Your task to perform on an android device: create a new album in the google photos Image 0: 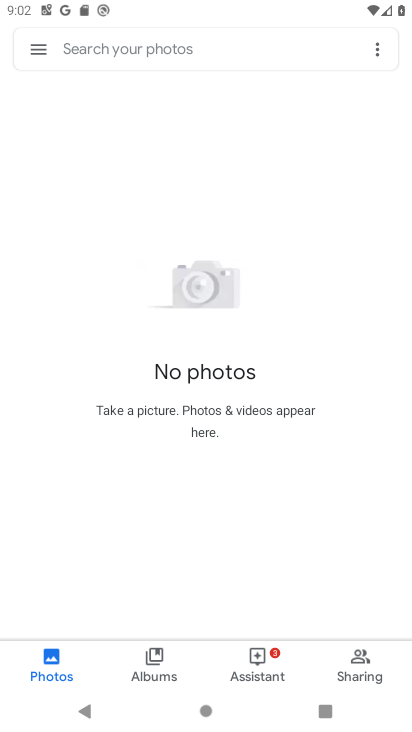
Step 0: press back button
Your task to perform on an android device: create a new album in the google photos Image 1: 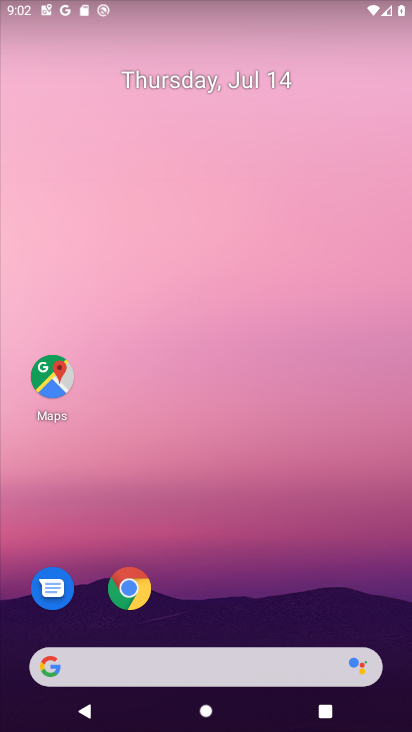
Step 1: drag from (239, 601) to (138, 10)
Your task to perform on an android device: create a new album in the google photos Image 2: 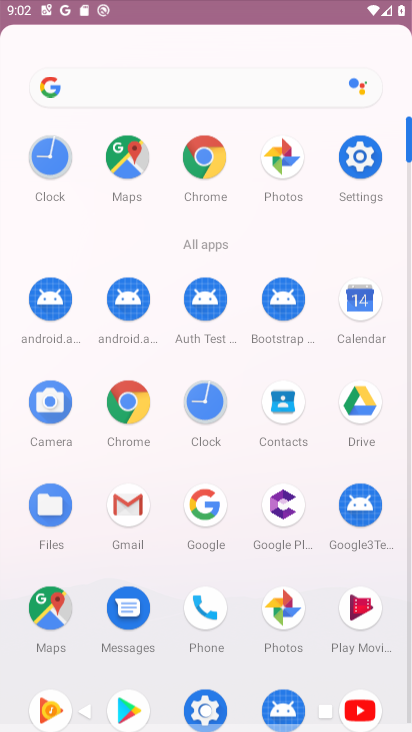
Step 2: drag from (239, 477) to (203, 142)
Your task to perform on an android device: create a new album in the google photos Image 3: 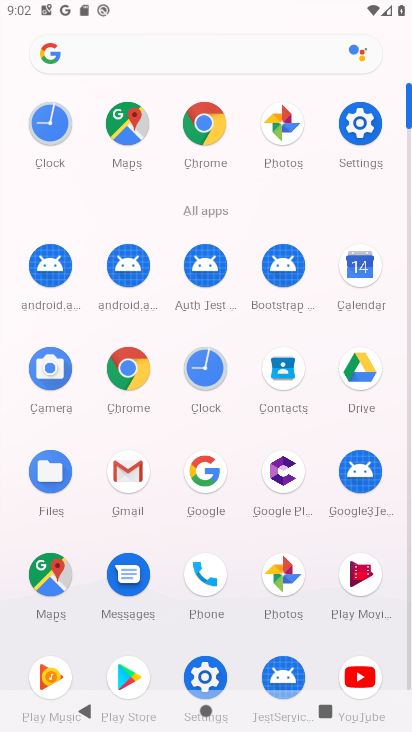
Step 3: click (275, 574)
Your task to perform on an android device: create a new album in the google photos Image 4: 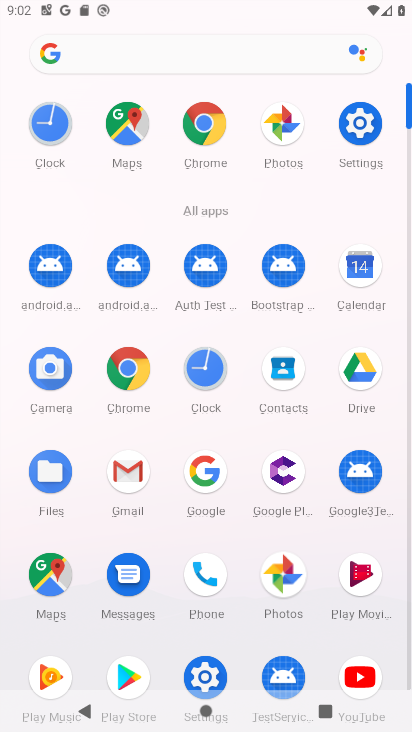
Step 4: click (279, 576)
Your task to perform on an android device: create a new album in the google photos Image 5: 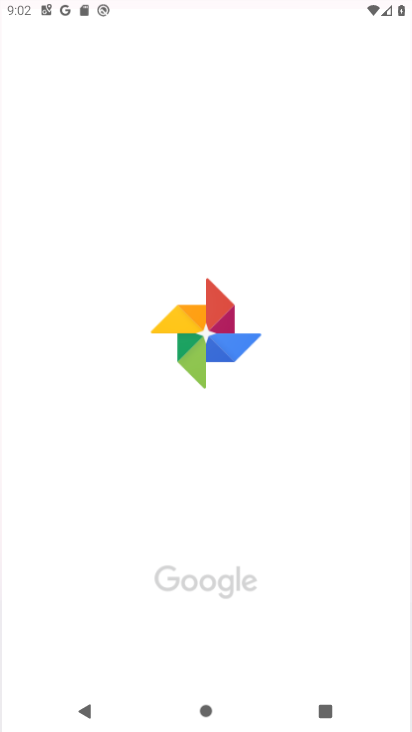
Step 5: click (279, 574)
Your task to perform on an android device: create a new album in the google photos Image 6: 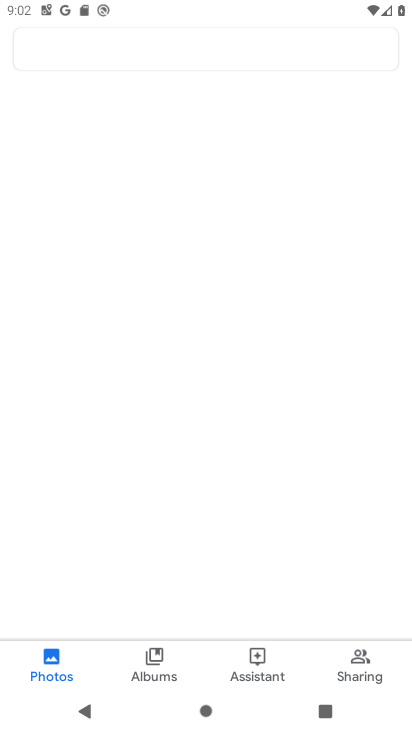
Step 6: click (280, 573)
Your task to perform on an android device: create a new album in the google photos Image 7: 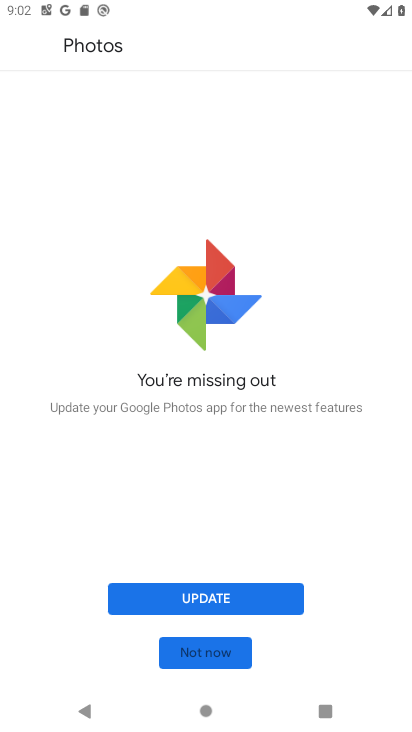
Step 7: click (210, 646)
Your task to perform on an android device: create a new album in the google photos Image 8: 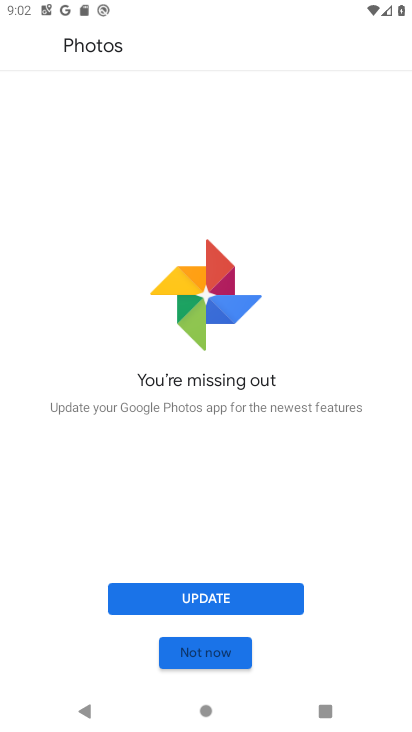
Step 8: click (210, 646)
Your task to perform on an android device: create a new album in the google photos Image 9: 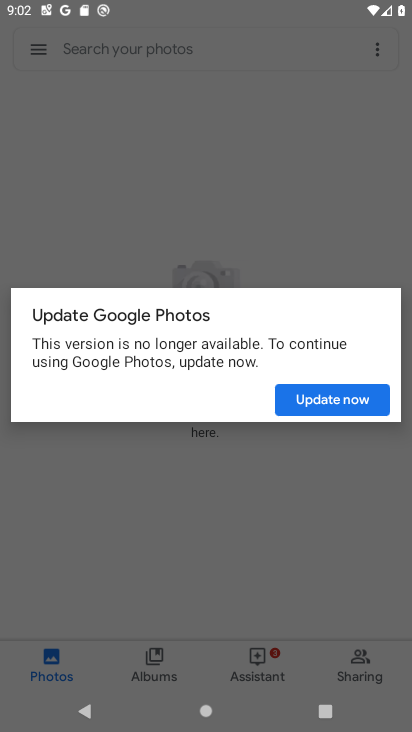
Step 9: click (317, 385)
Your task to perform on an android device: create a new album in the google photos Image 10: 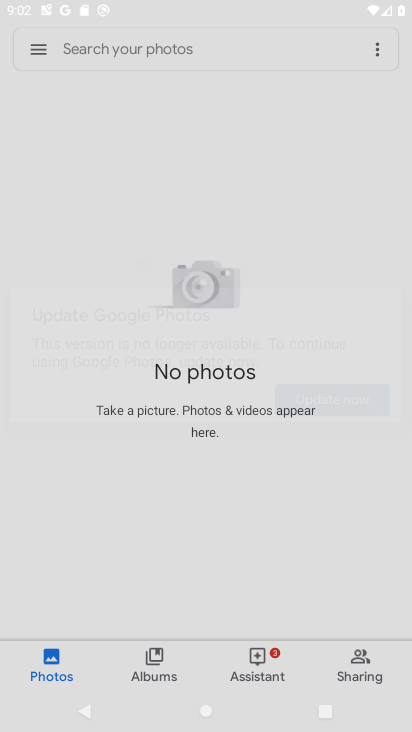
Step 10: click (321, 397)
Your task to perform on an android device: create a new album in the google photos Image 11: 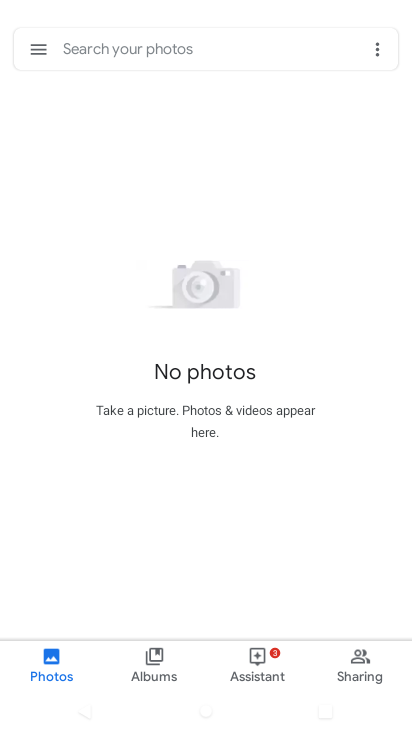
Step 11: click (321, 397)
Your task to perform on an android device: create a new album in the google photos Image 12: 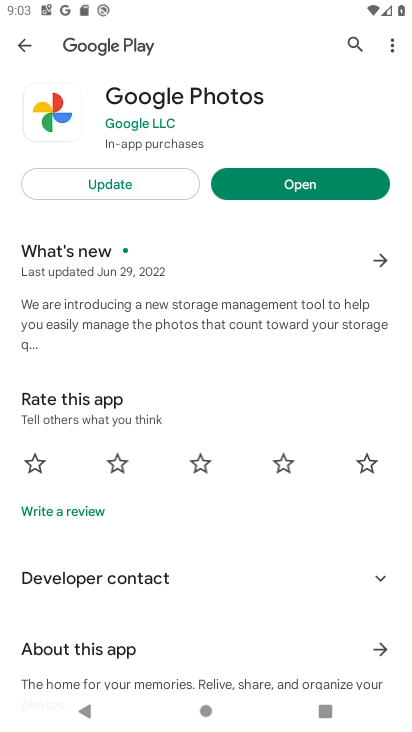
Step 12: click (31, 48)
Your task to perform on an android device: create a new album in the google photos Image 13: 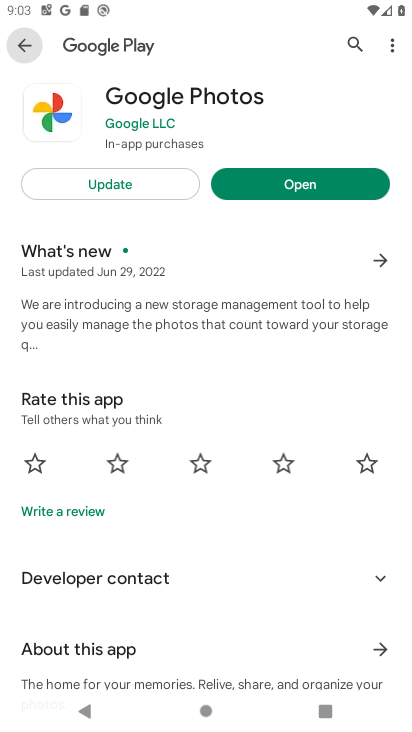
Step 13: click (31, 48)
Your task to perform on an android device: create a new album in the google photos Image 14: 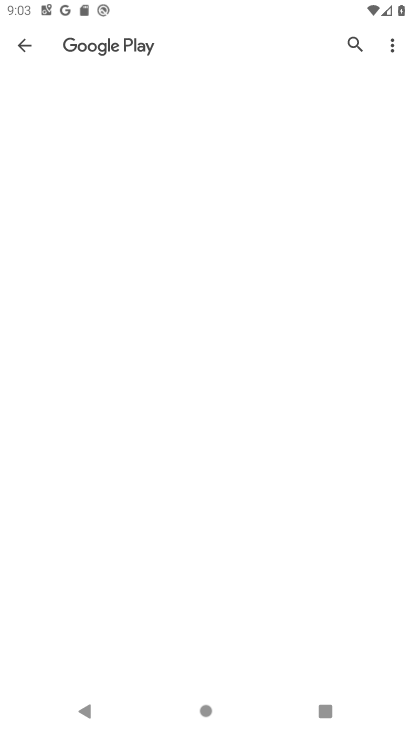
Step 14: click (31, 48)
Your task to perform on an android device: create a new album in the google photos Image 15: 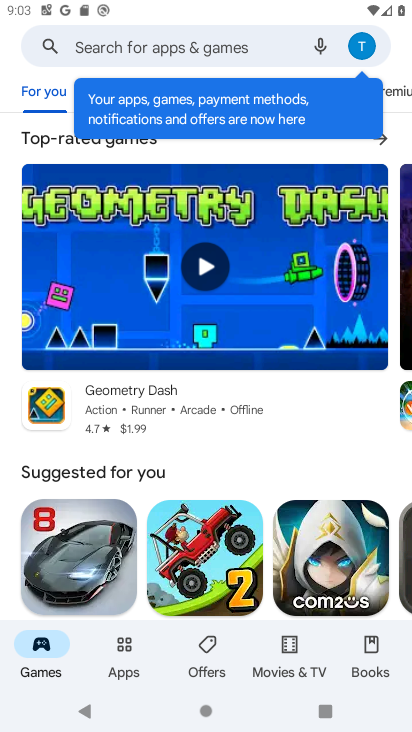
Step 15: click (282, 49)
Your task to perform on an android device: create a new album in the google photos Image 16: 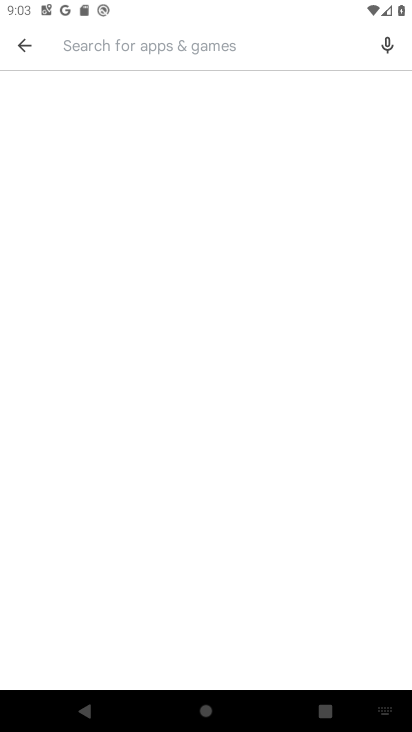
Step 16: click (21, 42)
Your task to perform on an android device: create a new album in the google photos Image 17: 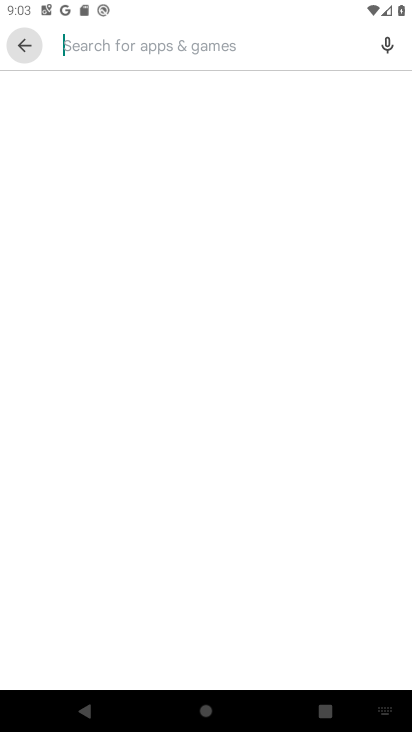
Step 17: click (24, 41)
Your task to perform on an android device: create a new album in the google photos Image 18: 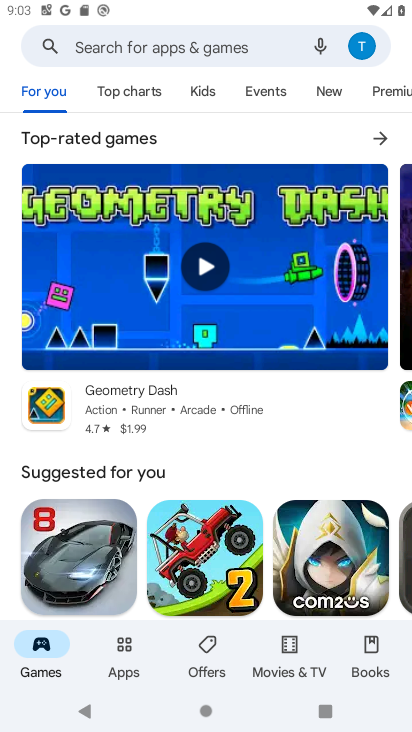
Step 18: press back button
Your task to perform on an android device: create a new album in the google photos Image 19: 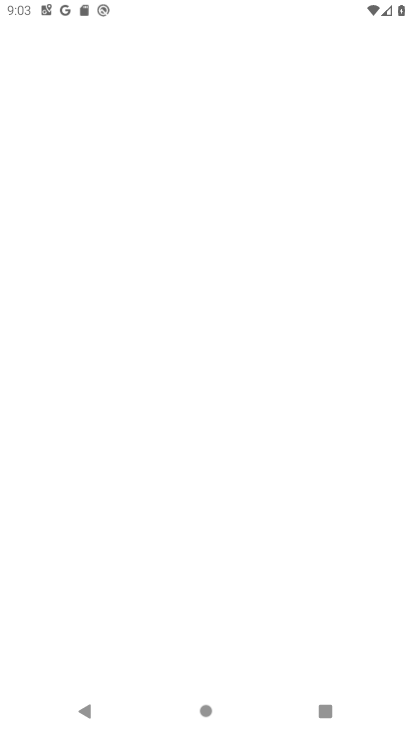
Step 19: press back button
Your task to perform on an android device: create a new album in the google photos Image 20: 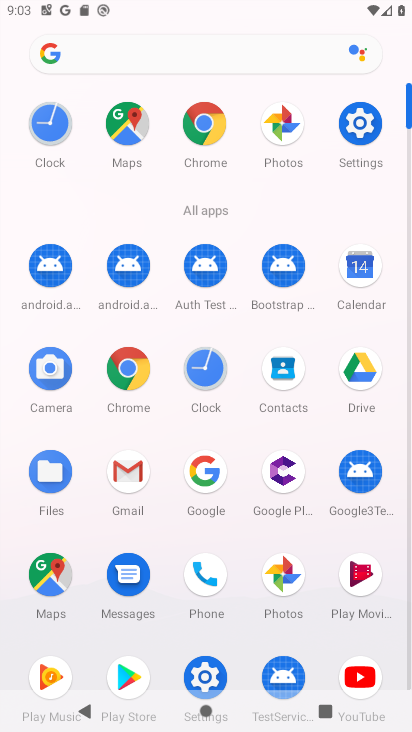
Step 20: click (284, 572)
Your task to perform on an android device: create a new album in the google photos Image 21: 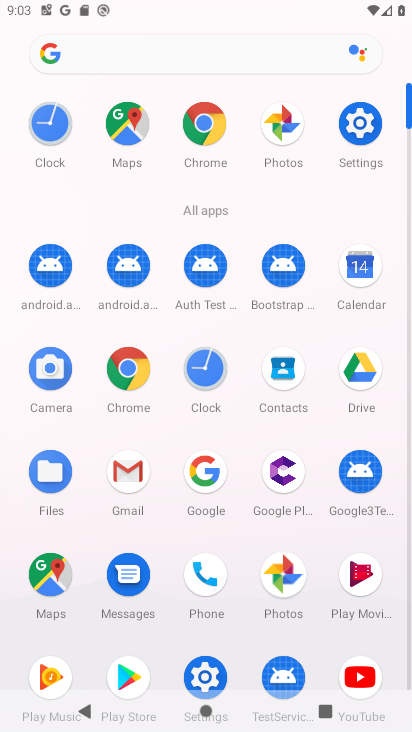
Step 21: click (284, 572)
Your task to perform on an android device: create a new album in the google photos Image 22: 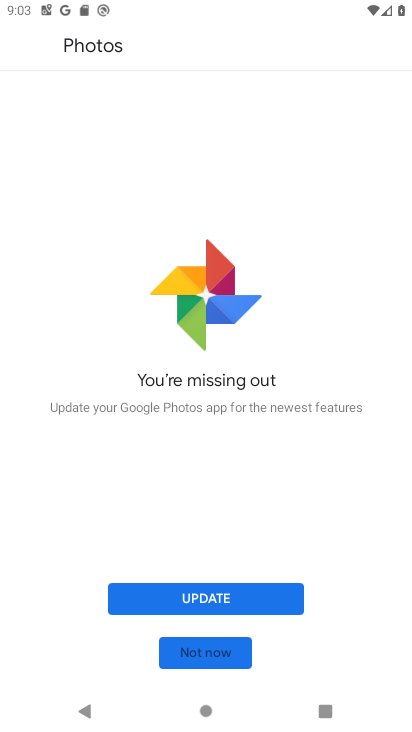
Step 22: click (196, 646)
Your task to perform on an android device: create a new album in the google photos Image 23: 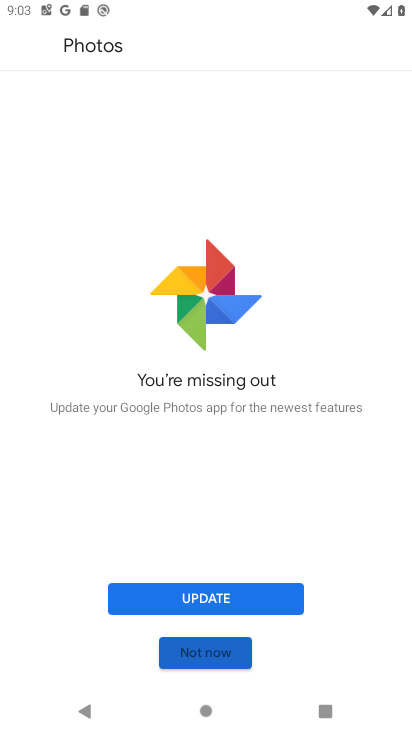
Step 23: click (196, 655)
Your task to perform on an android device: create a new album in the google photos Image 24: 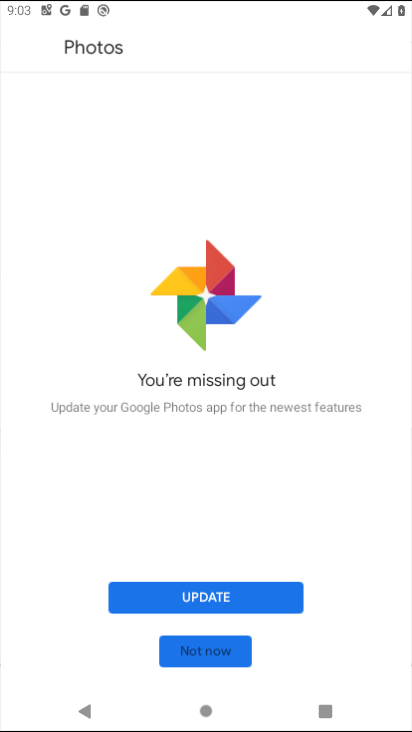
Step 24: click (201, 654)
Your task to perform on an android device: create a new album in the google photos Image 25: 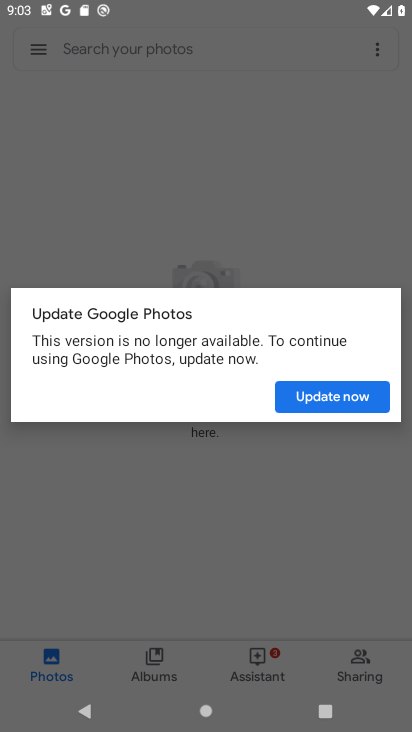
Step 25: click (211, 654)
Your task to perform on an android device: create a new album in the google photos Image 26: 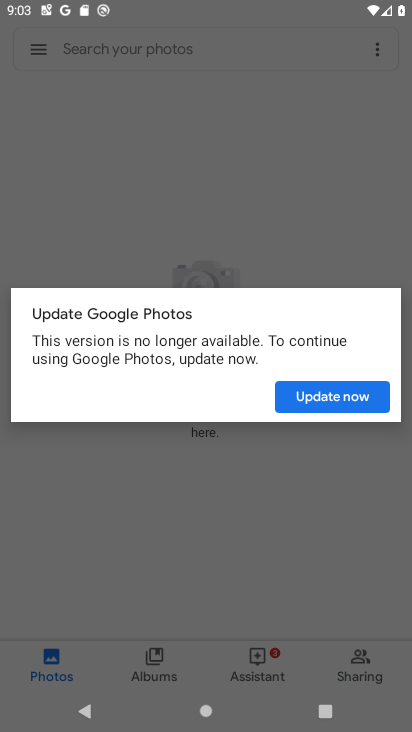
Step 26: click (245, 171)
Your task to perform on an android device: create a new album in the google photos Image 27: 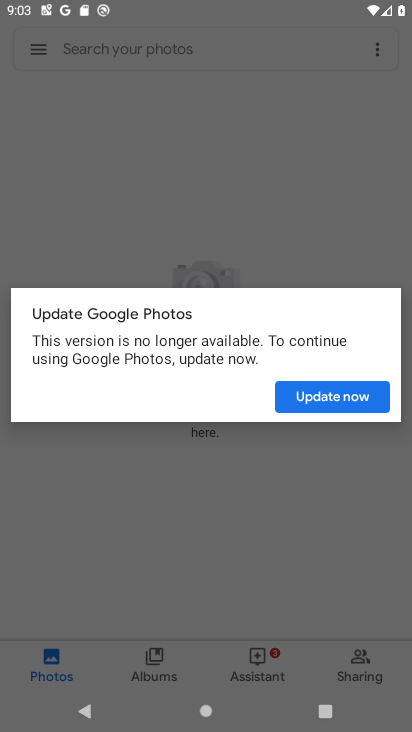
Step 27: click (244, 170)
Your task to perform on an android device: create a new album in the google photos Image 28: 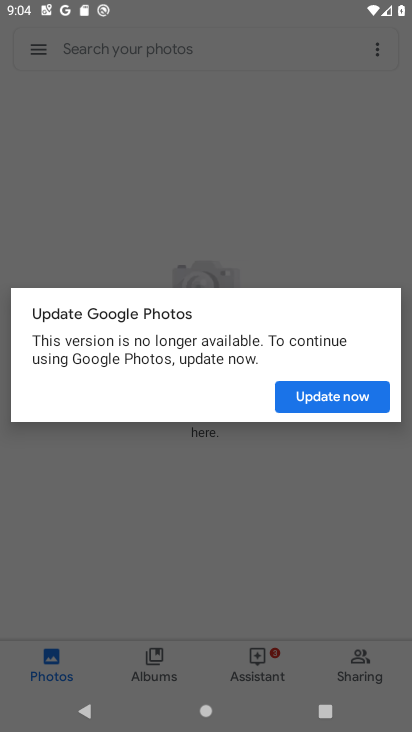
Step 28: click (331, 231)
Your task to perform on an android device: create a new album in the google photos Image 29: 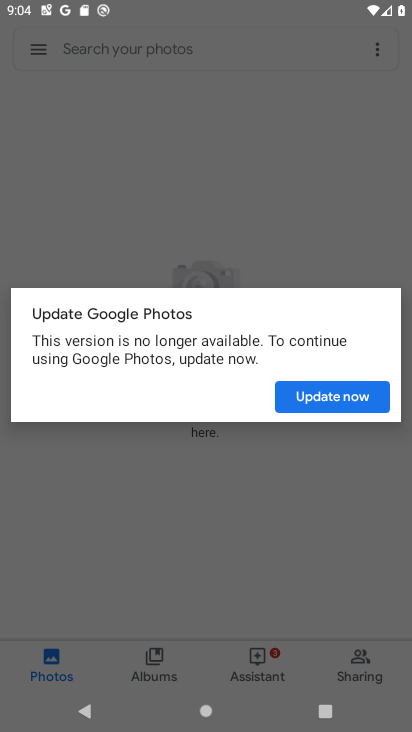
Step 29: click (331, 231)
Your task to perform on an android device: create a new album in the google photos Image 30: 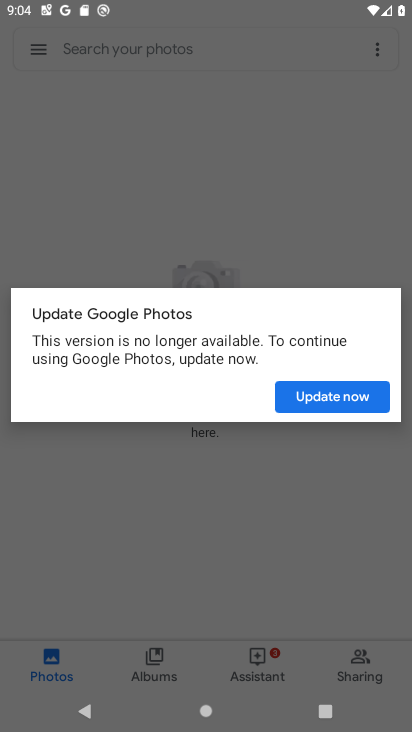
Step 30: click (331, 231)
Your task to perform on an android device: create a new album in the google photos Image 31: 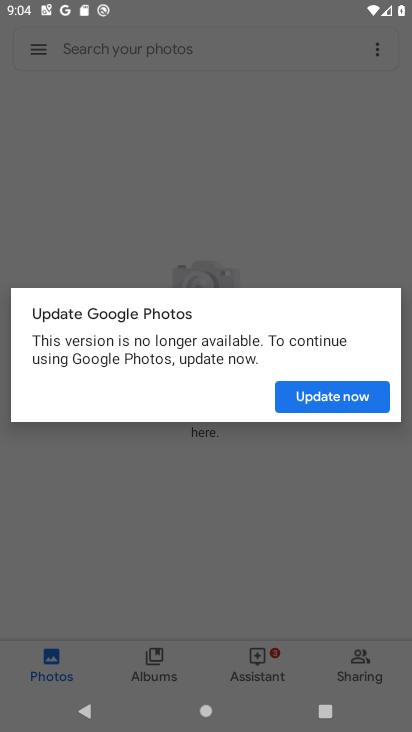
Step 31: click (330, 391)
Your task to perform on an android device: create a new album in the google photos Image 32: 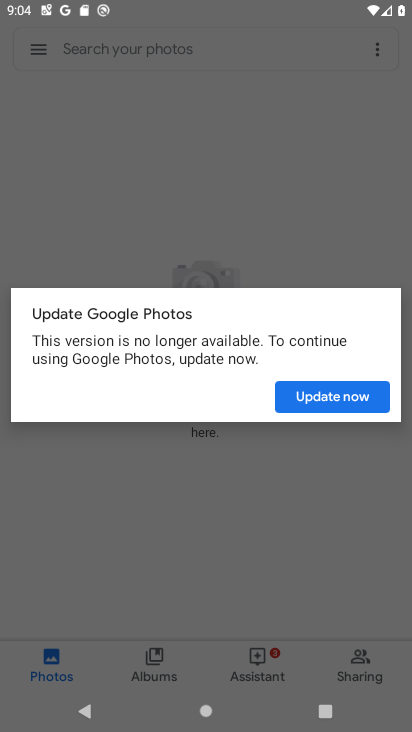
Step 32: click (330, 397)
Your task to perform on an android device: create a new album in the google photos Image 33: 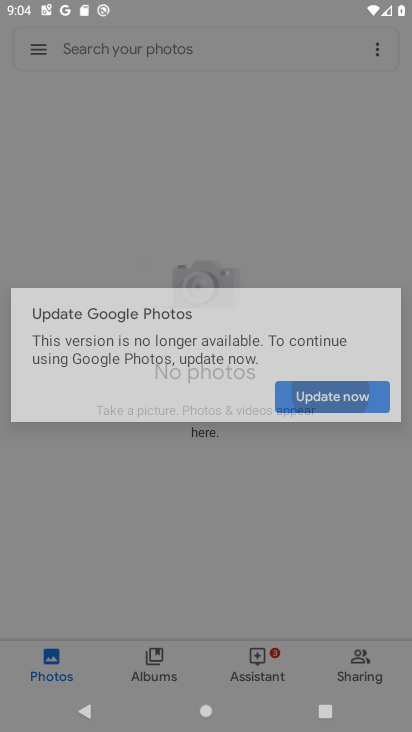
Step 33: click (333, 399)
Your task to perform on an android device: create a new album in the google photos Image 34: 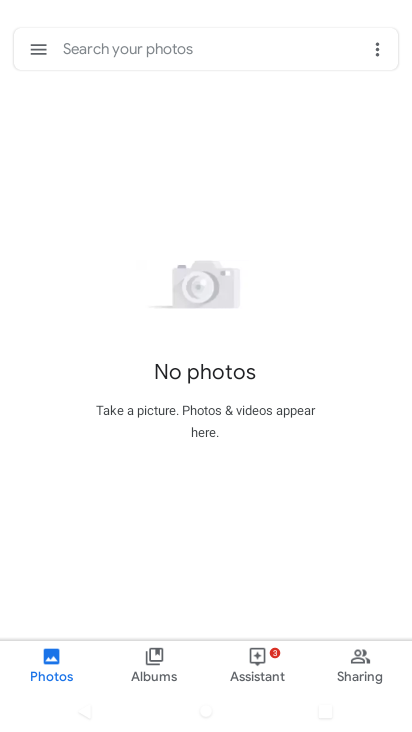
Step 34: click (334, 399)
Your task to perform on an android device: create a new album in the google photos Image 35: 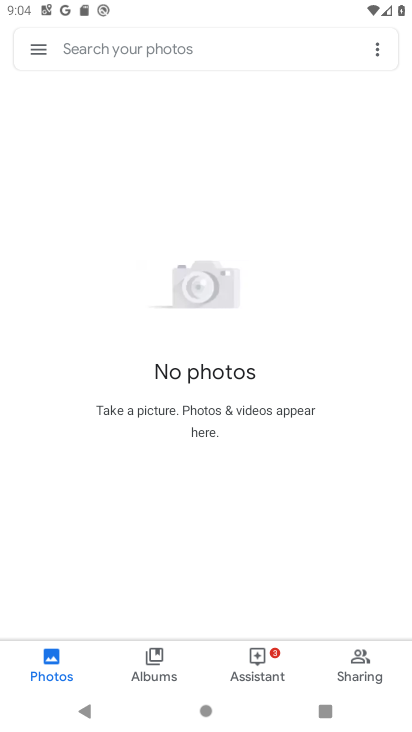
Step 35: press back button
Your task to perform on an android device: create a new album in the google photos Image 36: 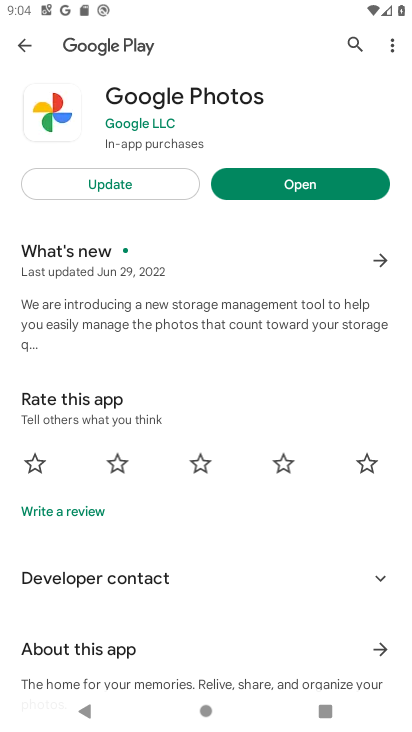
Step 36: click (31, 48)
Your task to perform on an android device: create a new album in the google photos Image 37: 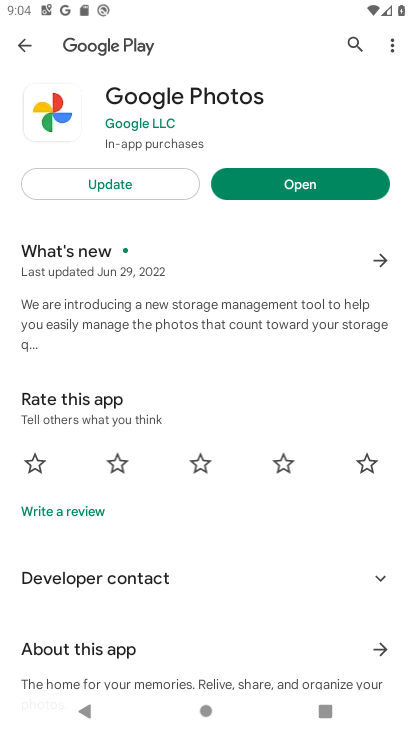
Step 37: click (26, 46)
Your task to perform on an android device: create a new album in the google photos Image 38: 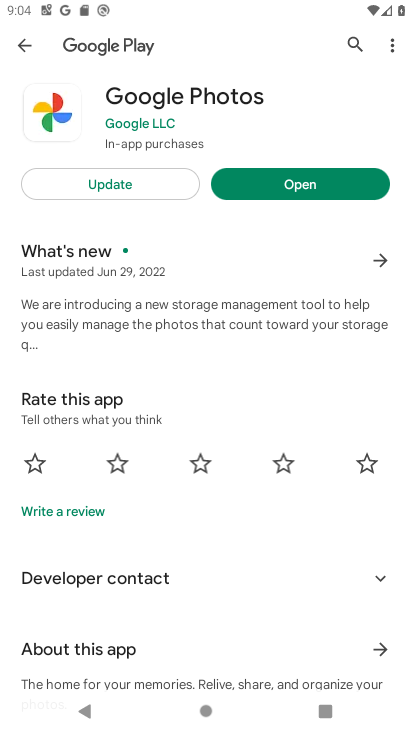
Step 38: press back button
Your task to perform on an android device: create a new album in the google photos Image 39: 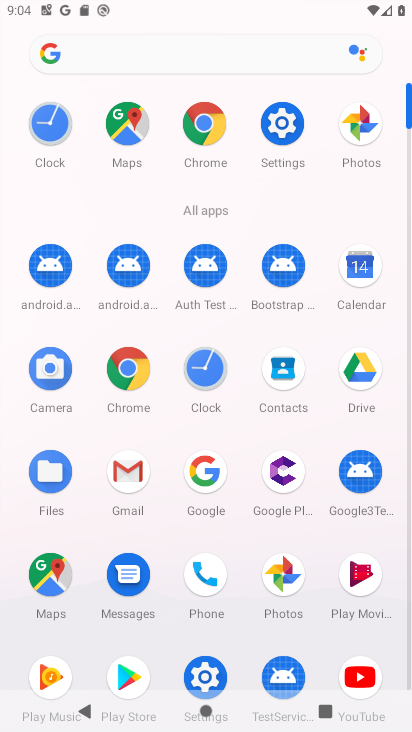
Step 39: click (282, 579)
Your task to perform on an android device: create a new album in the google photos Image 40: 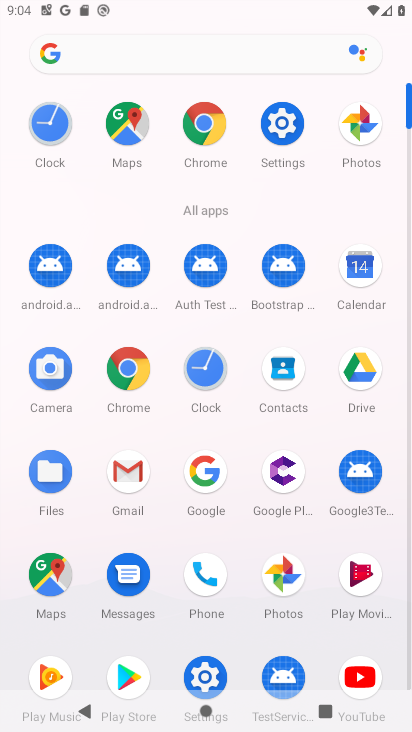
Step 40: click (282, 579)
Your task to perform on an android device: create a new album in the google photos Image 41: 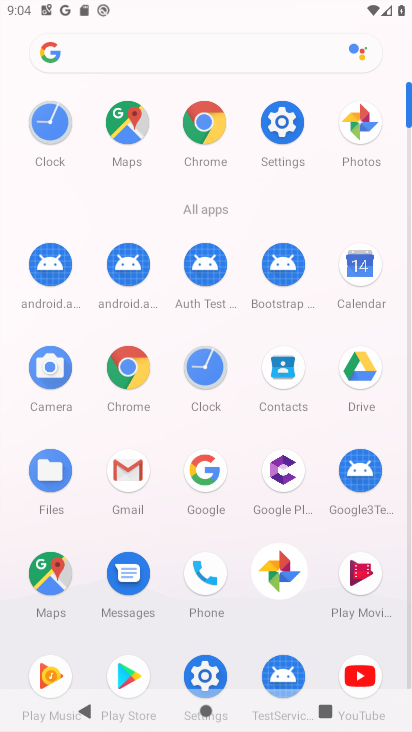
Step 41: click (282, 579)
Your task to perform on an android device: create a new album in the google photos Image 42: 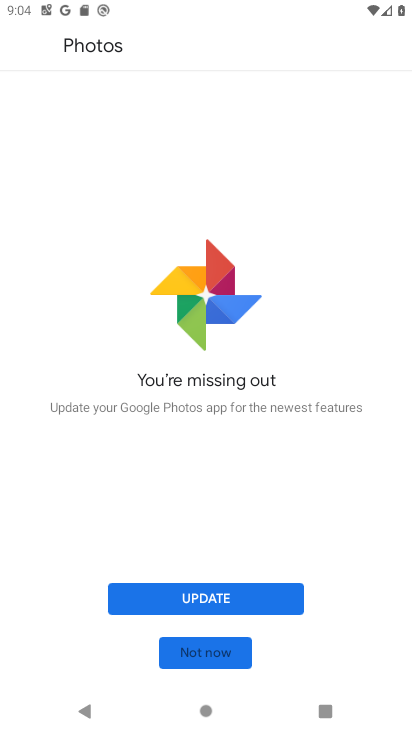
Step 42: click (217, 644)
Your task to perform on an android device: create a new album in the google photos Image 43: 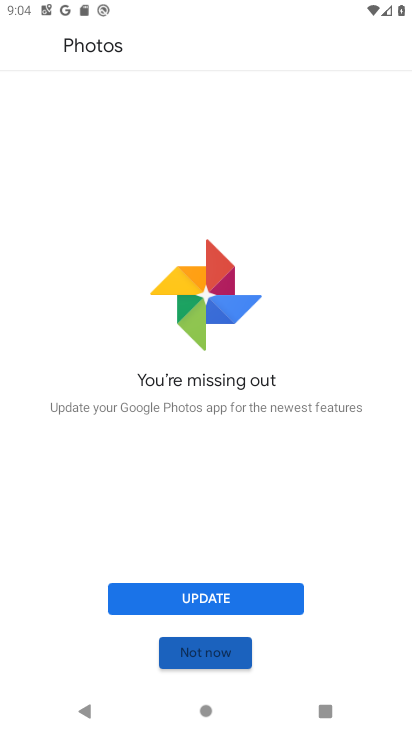
Step 43: click (218, 644)
Your task to perform on an android device: create a new album in the google photos Image 44: 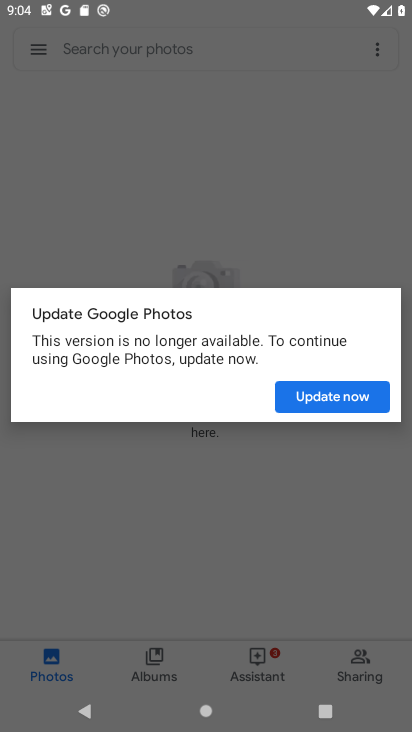
Step 44: click (333, 398)
Your task to perform on an android device: create a new album in the google photos Image 45: 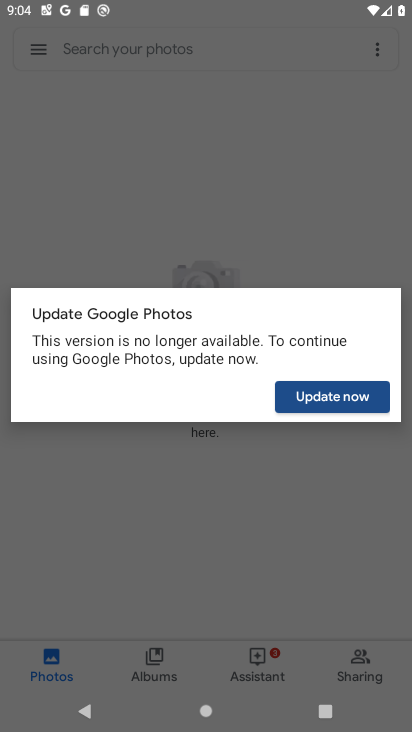
Step 45: click (347, 389)
Your task to perform on an android device: create a new album in the google photos Image 46: 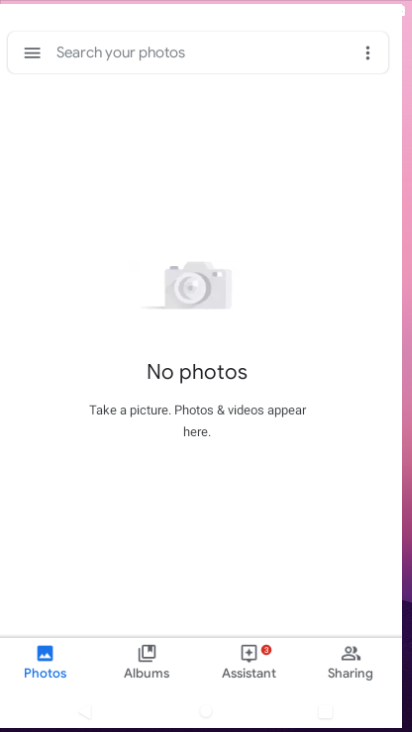
Step 46: click (353, 389)
Your task to perform on an android device: create a new album in the google photos Image 47: 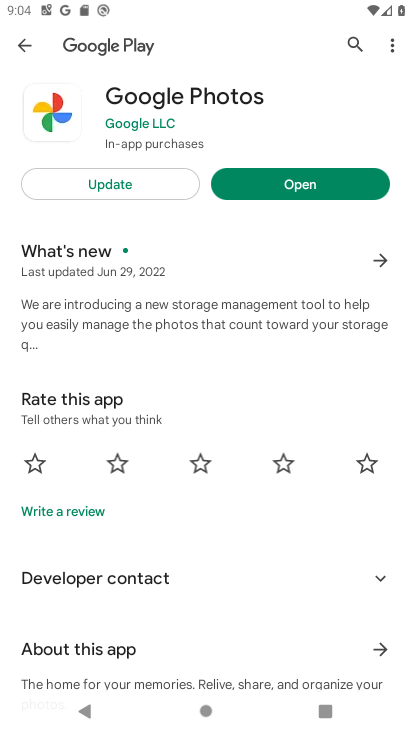
Step 47: click (146, 183)
Your task to perform on an android device: create a new album in the google photos Image 48: 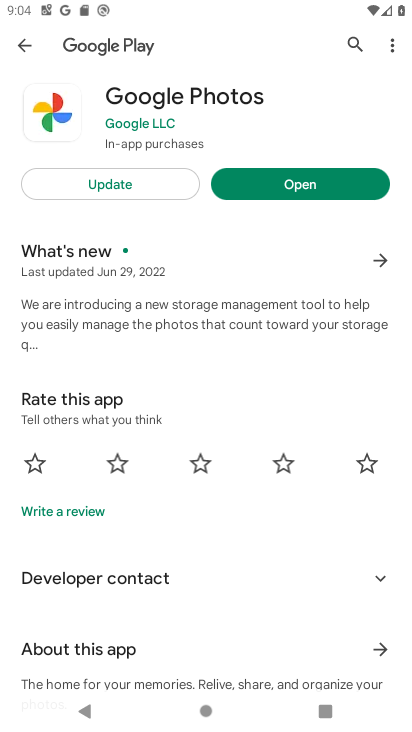
Step 48: click (146, 183)
Your task to perform on an android device: create a new album in the google photos Image 49: 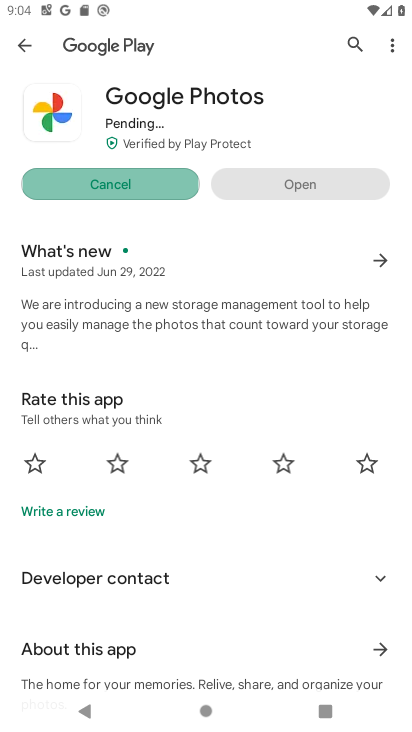
Step 49: click (146, 183)
Your task to perform on an android device: create a new album in the google photos Image 50: 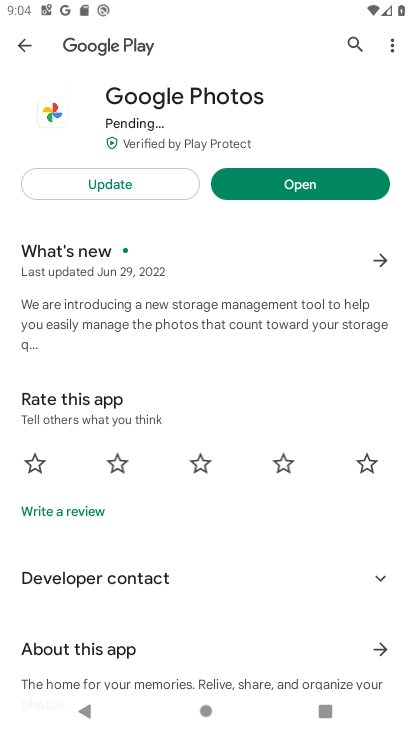
Step 50: click (146, 183)
Your task to perform on an android device: create a new album in the google photos Image 51: 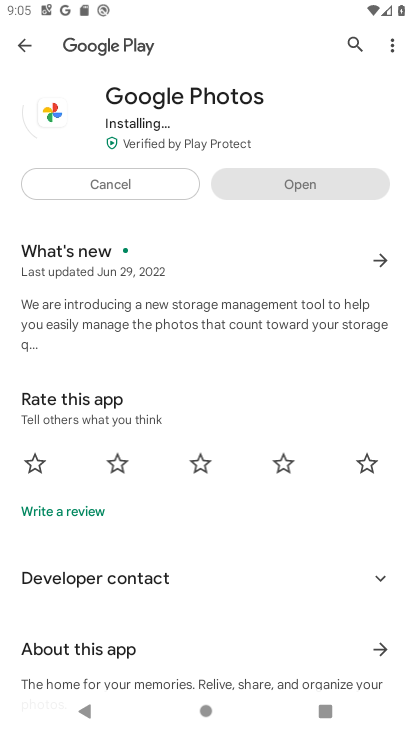
Step 51: click (321, 184)
Your task to perform on an android device: create a new album in the google photos Image 52: 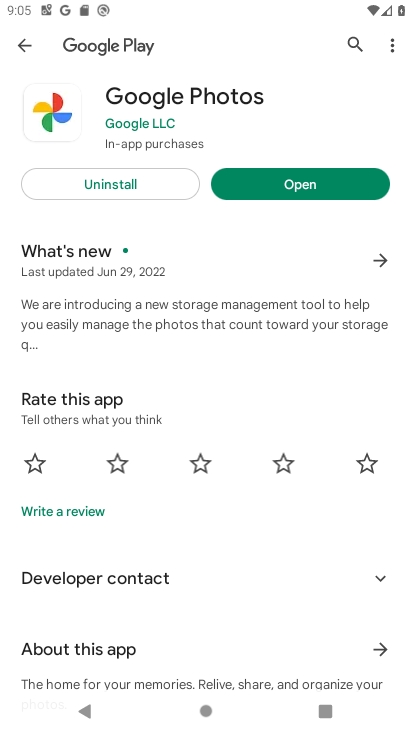
Step 52: task complete